Your task to perform on an android device: turn on showing notifications on the lock screen Image 0: 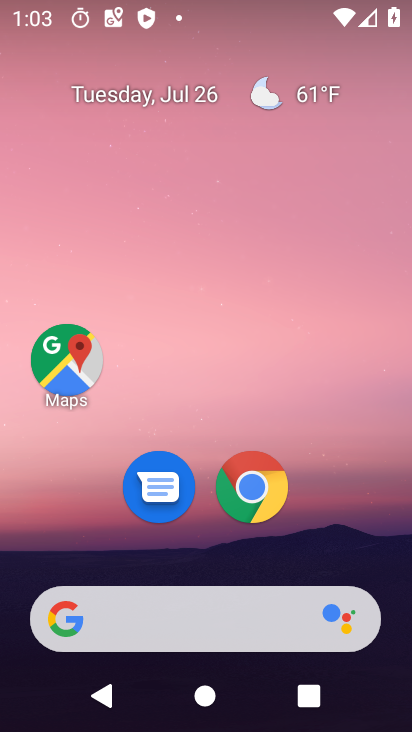
Step 0: drag from (72, 566) to (223, 33)
Your task to perform on an android device: turn on showing notifications on the lock screen Image 1: 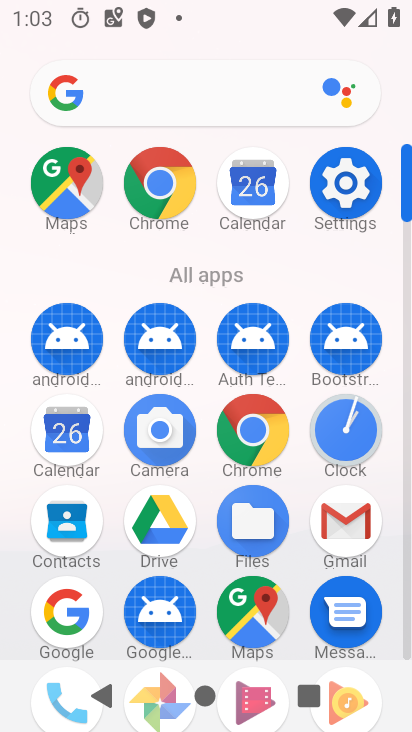
Step 1: click (336, 186)
Your task to perform on an android device: turn on showing notifications on the lock screen Image 2: 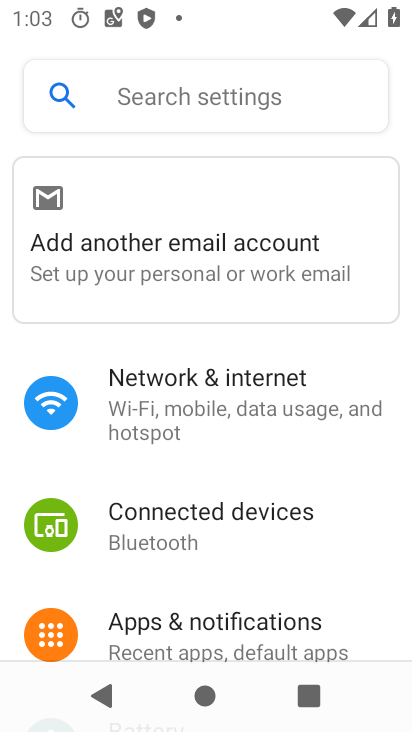
Step 2: click (203, 627)
Your task to perform on an android device: turn on showing notifications on the lock screen Image 3: 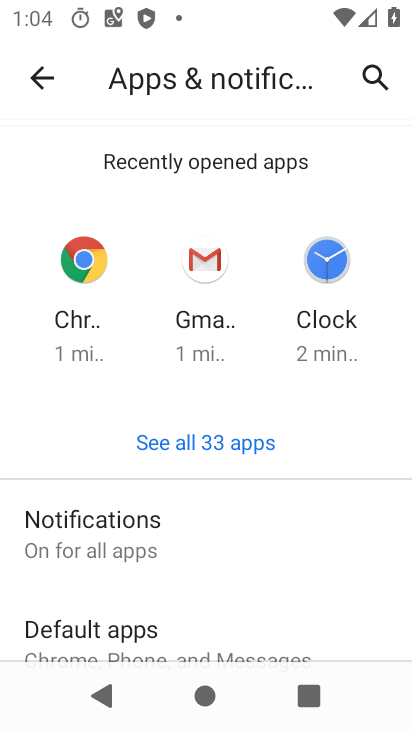
Step 3: click (146, 527)
Your task to perform on an android device: turn on showing notifications on the lock screen Image 4: 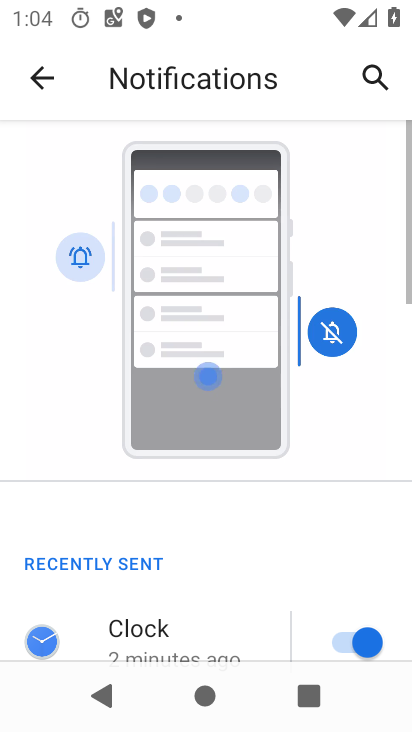
Step 4: drag from (165, 598) to (241, 7)
Your task to perform on an android device: turn on showing notifications on the lock screen Image 5: 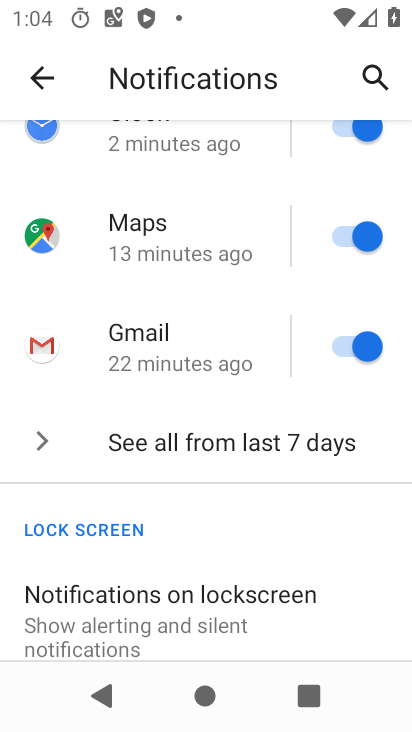
Step 5: click (129, 595)
Your task to perform on an android device: turn on showing notifications on the lock screen Image 6: 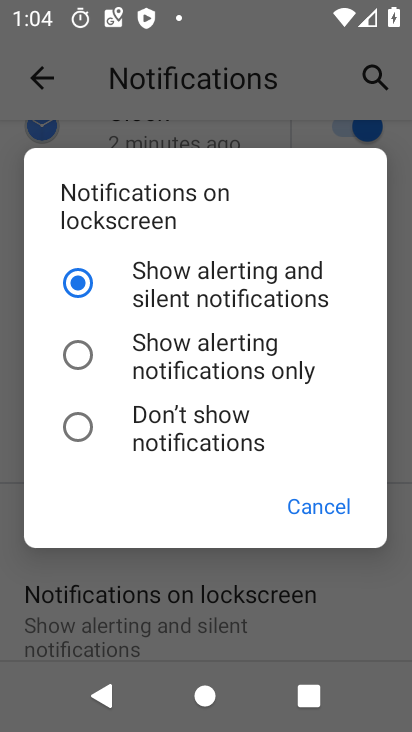
Step 6: click (75, 271)
Your task to perform on an android device: turn on showing notifications on the lock screen Image 7: 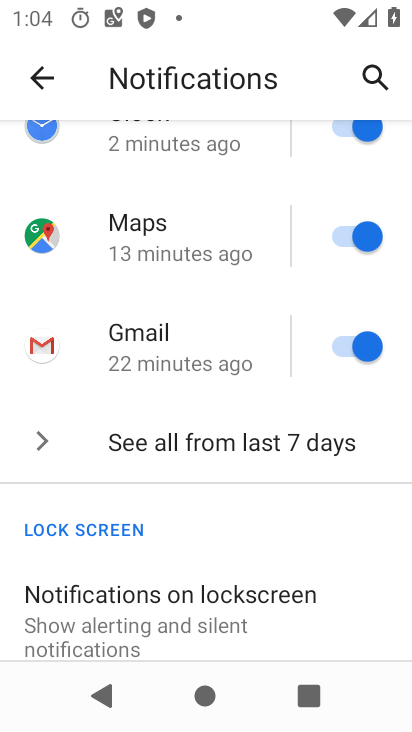
Step 7: task complete